Your task to perform on an android device: turn on sleep mode Image 0: 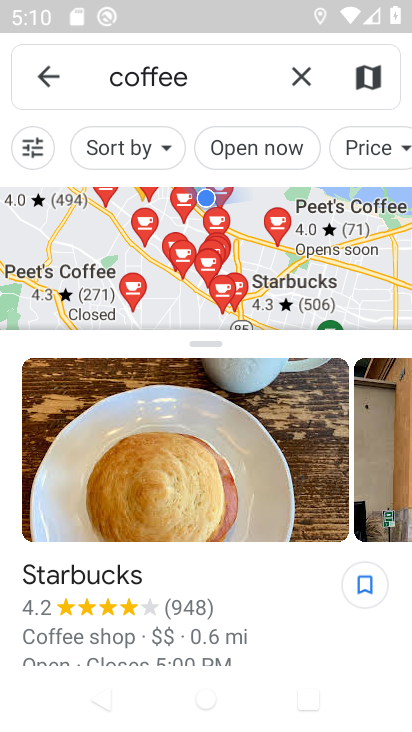
Step 0: press home button
Your task to perform on an android device: turn on sleep mode Image 1: 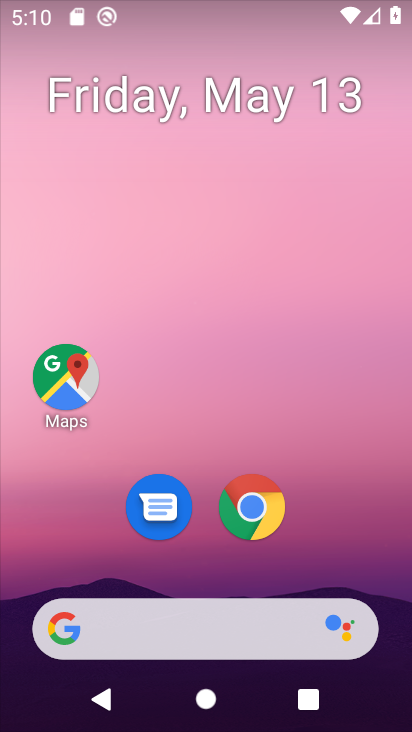
Step 1: drag from (341, 555) to (236, 90)
Your task to perform on an android device: turn on sleep mode Image 2: 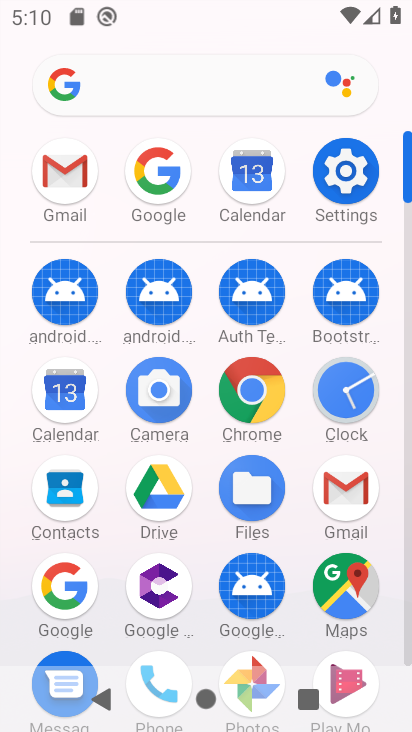
Step 2: click (340, 172)
Your task to perform on an android device: turn on sleep mode Image 3: 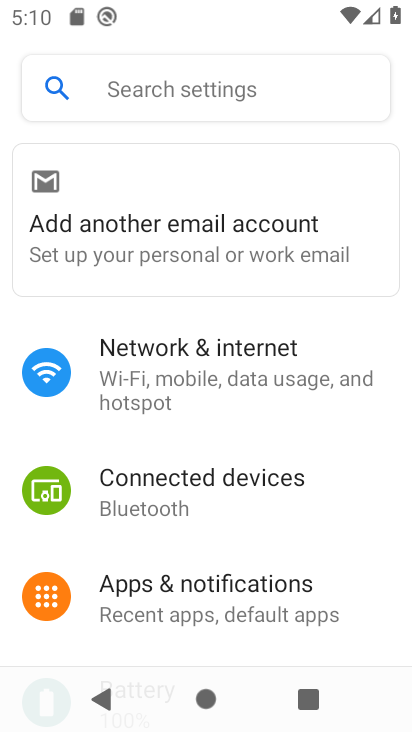
Step 3: drag from (222, 582) to (200, 150)
Your task to perform on an android device: turn on sleep mode Image 4: 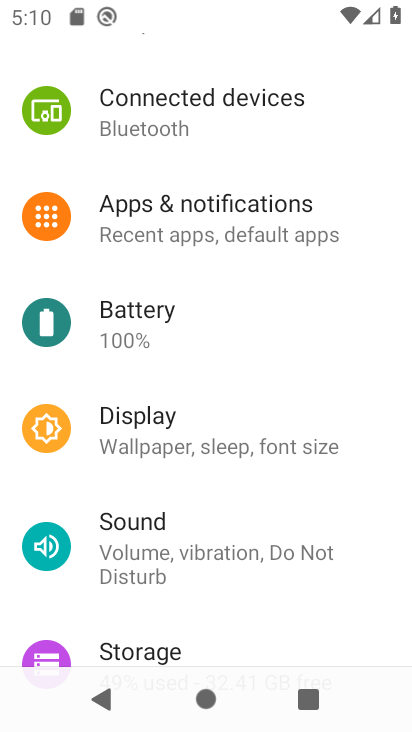
Step 4: click (194, 415)
Your task to perform on an android device: turn on sleep mode Image 5: 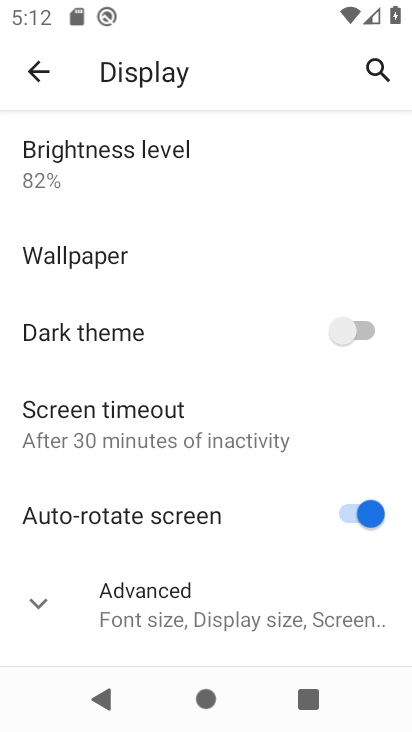
Step 5: task complete